Your task to perform on an android device: set the timer Image 0: 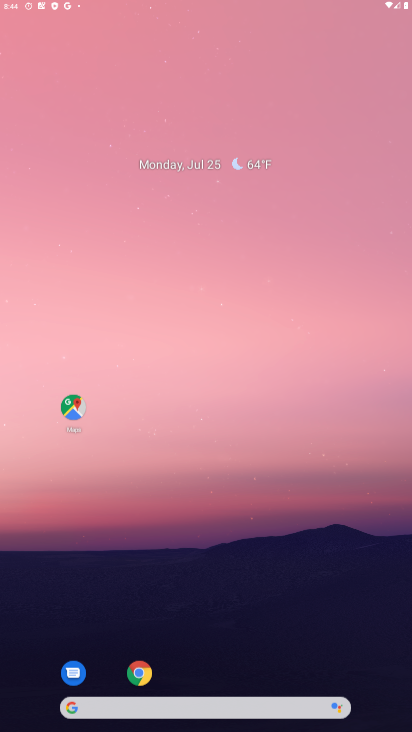
Step 0: click (195, 7)
Your task to perform on an android device: set the timer Image 1: 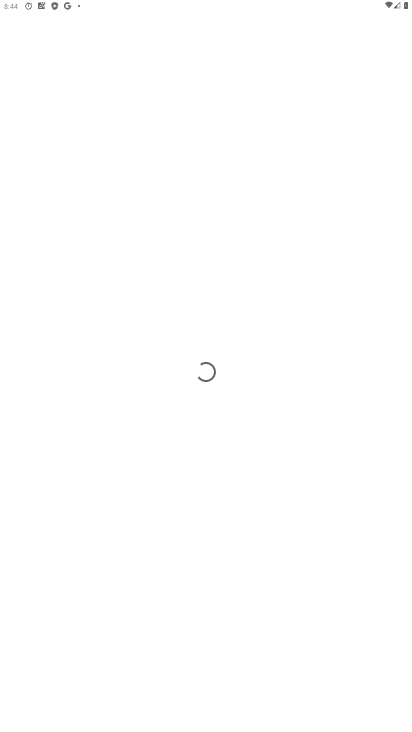
Step 1: press home button
Your task to perform on an android device: set the timer Image 2: 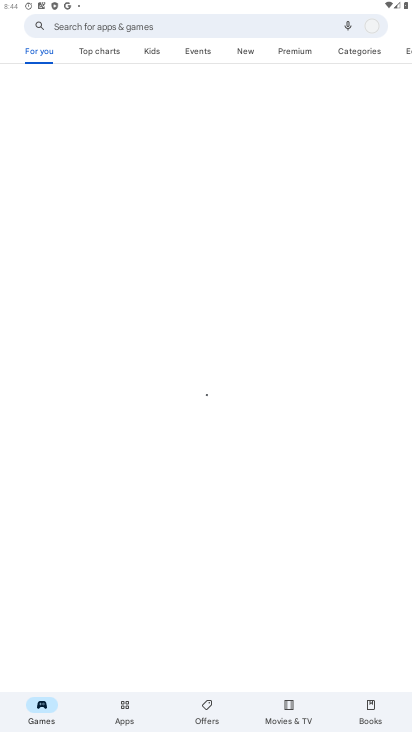
Step 2: press home button
Your task to perform on an android device: set the timer Image 3: 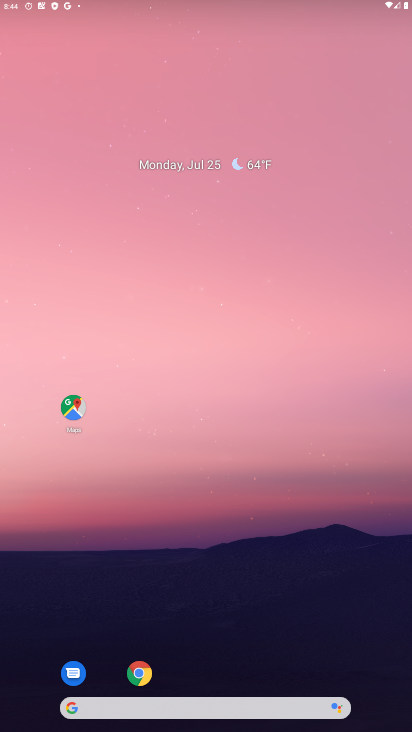
Step 3: drag from (227, 485) to (257, 112)
Your task to perform on an android device: set the timer Image 4: 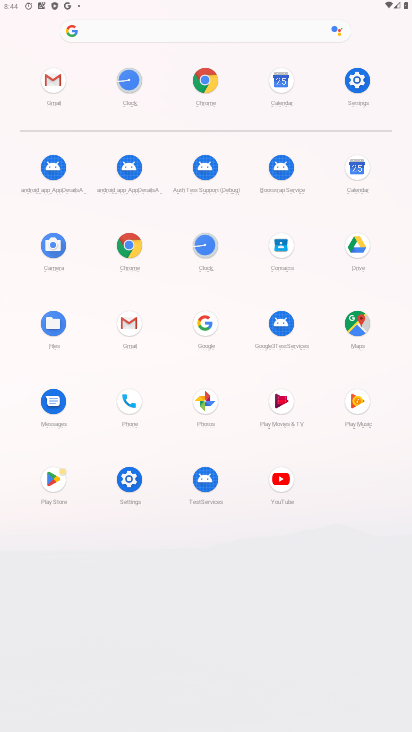
Step 4: click (202, 250)
Your task to perform on an android device: set the timer Image 5: 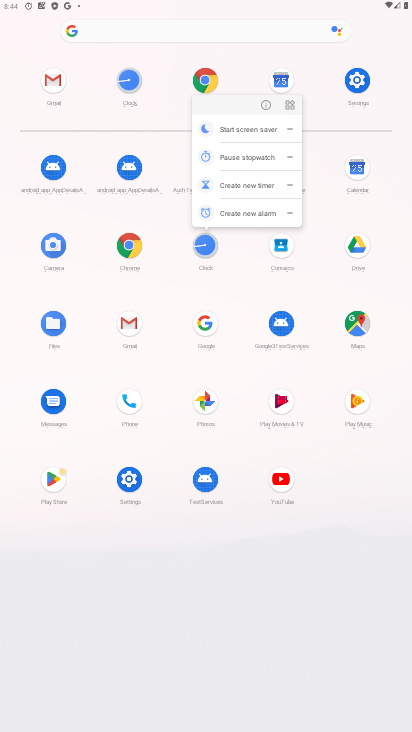
Step 5: click (258, 102)
Your task to perform on an android device: set the timer Image 6: 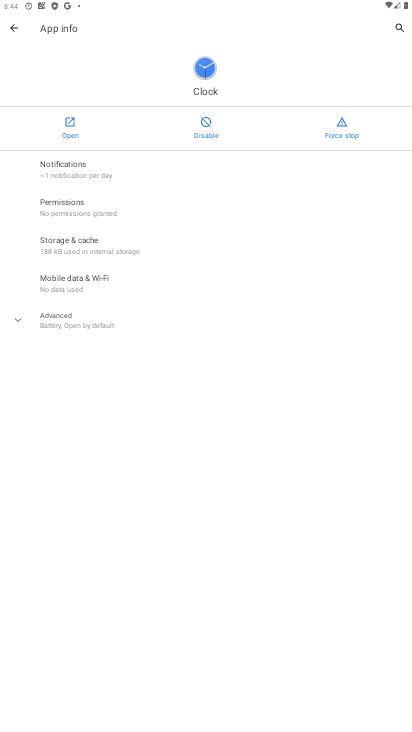
Step 6: click (72, 118)
Your task to perform on an android device: set the timer Image 7: 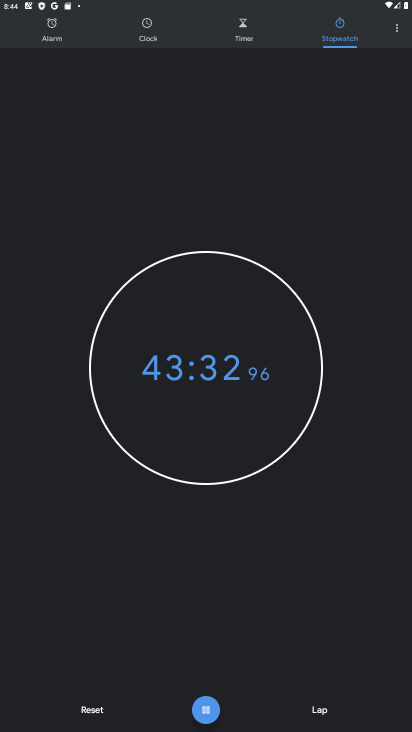
Step 7: click (247, 28)
Your task to perform on an android device: set the timer Image 8: 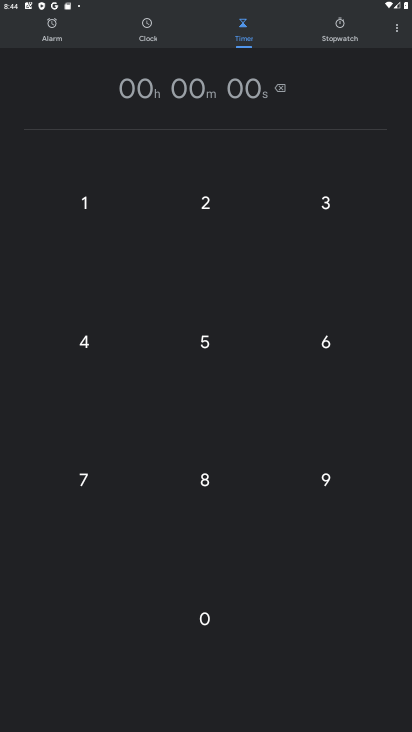
Step 8: click (198, 218)
Your task to perform on an android device: set the timer Image 9: 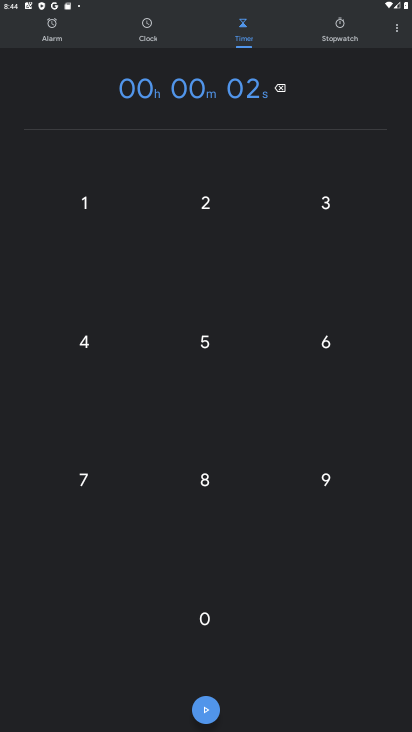
Step 9: click (335, 199)
Your task to perform on an android device: set the timer Image 10: 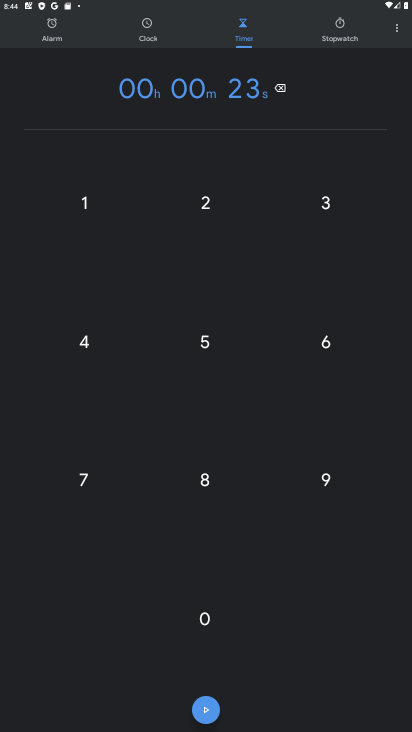
Step 10: click (204, 362)
Your task to perform on an android device: set the timer Image 11: 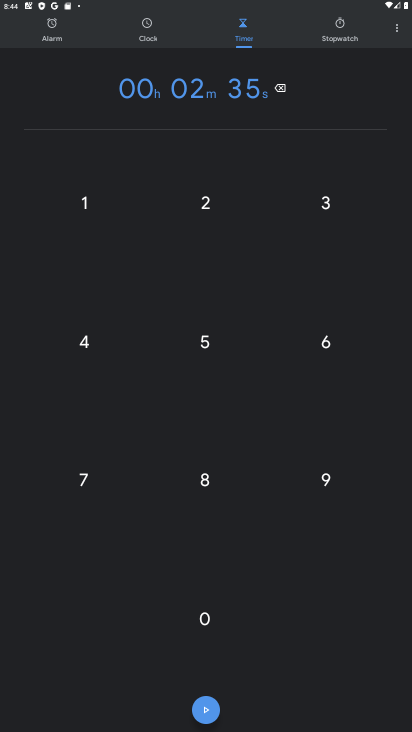
Step 11: click (205, 706)
Your task to perform on an android device: set the timer Image 12: 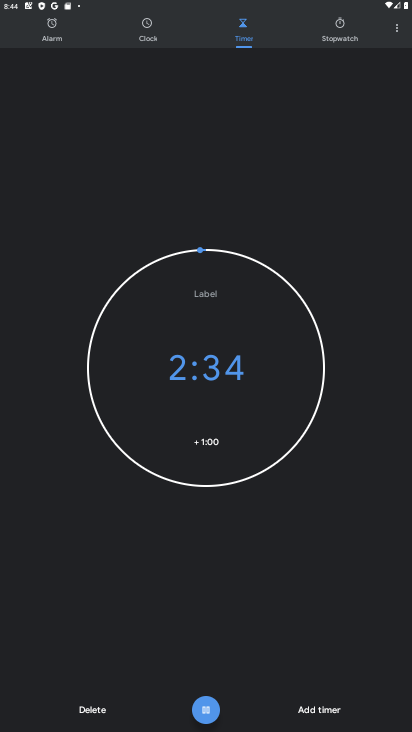
Step 12: task complete